Your task to perform on an android device: Show me popular games on the Play Store Image 0: 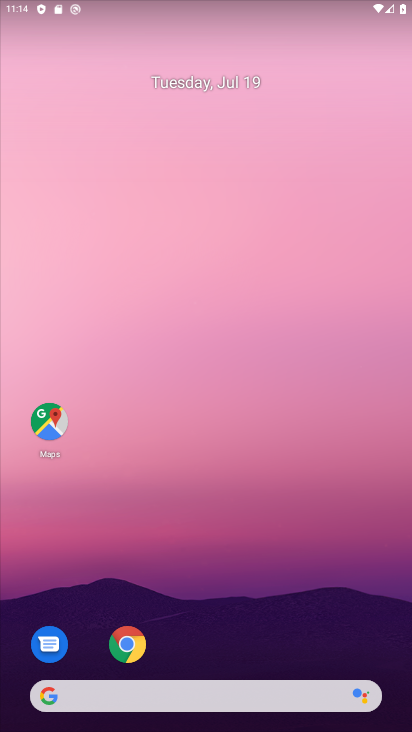
Step 0: click (53, 422)
Your task to perform on an android device: Show me popular games on the Play Store Image 1: 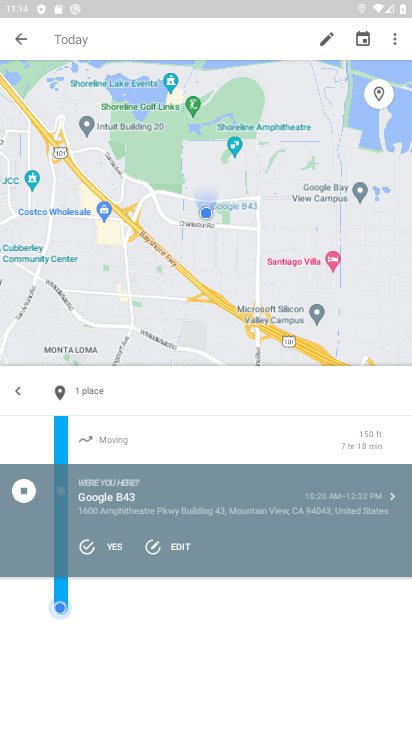
Step 1: press home button
Your task to perform on an android device: Show me popular games on the Play Store Image 2: 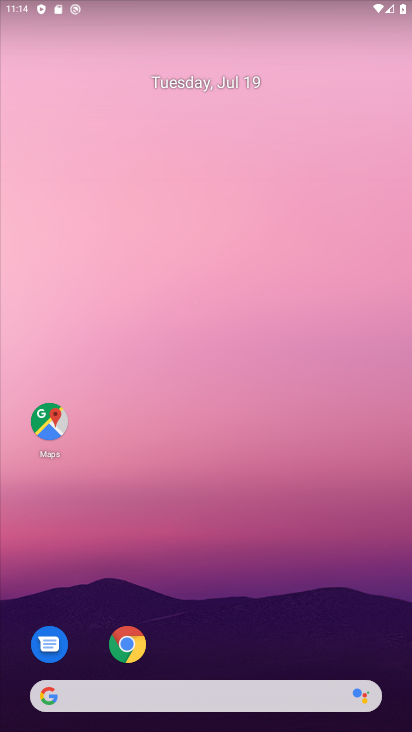
Step 2: drag from (69, 341) to (78, 97)
Your task to perform on an android device: Show me popular games on the Play Store Image 3: 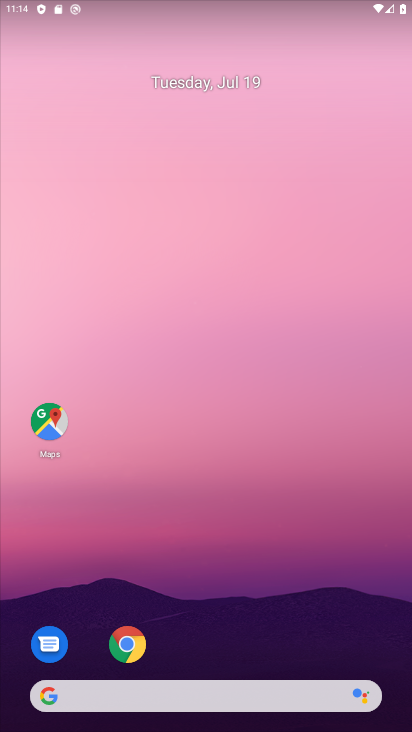
Step 3: drag from (8, 696) to (95, 234)
Your task to perform on an android device: Show me popular games on the Play Store Image 4: 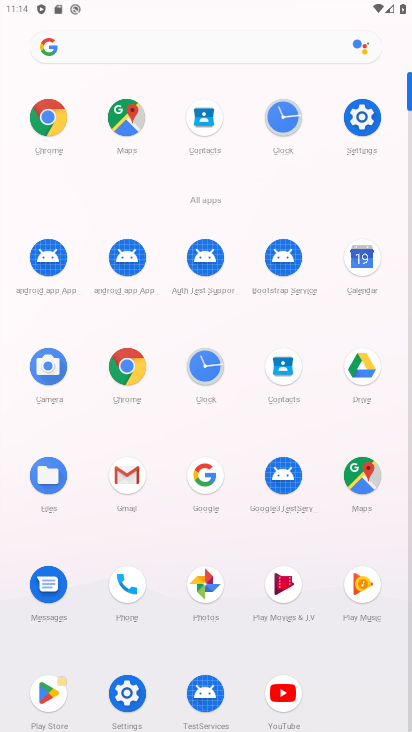
Step 4: click (41, 692)
Your task to perform on an android device: Show me popular games on the Play Store Image 5: 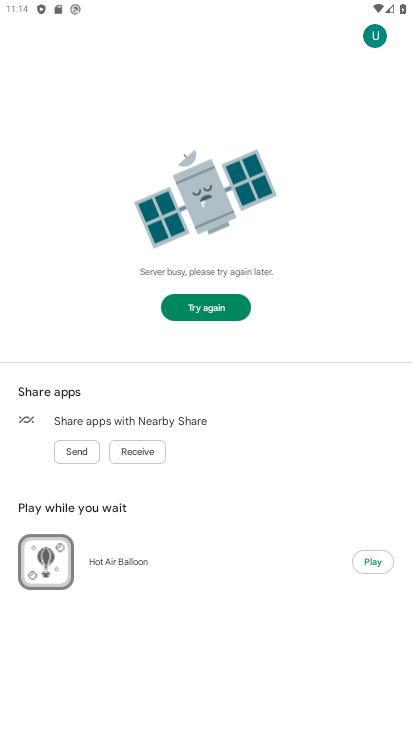
Step 5: task complete